Your task to perform on an android device: open app "Life360: Find Family & Friends" (install if not already installed) and go to login screen Image 0: 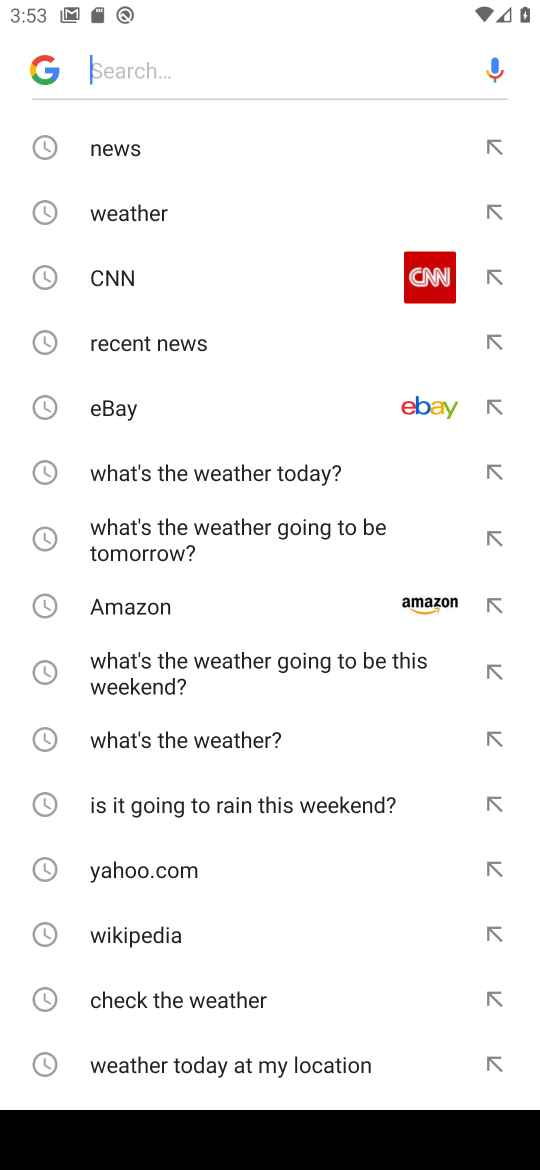
Step 0: press home button
Your task to perform on an android device: open app "Life360: Find Family & Friends" (install if not already installed) and go to login screen Image 1: 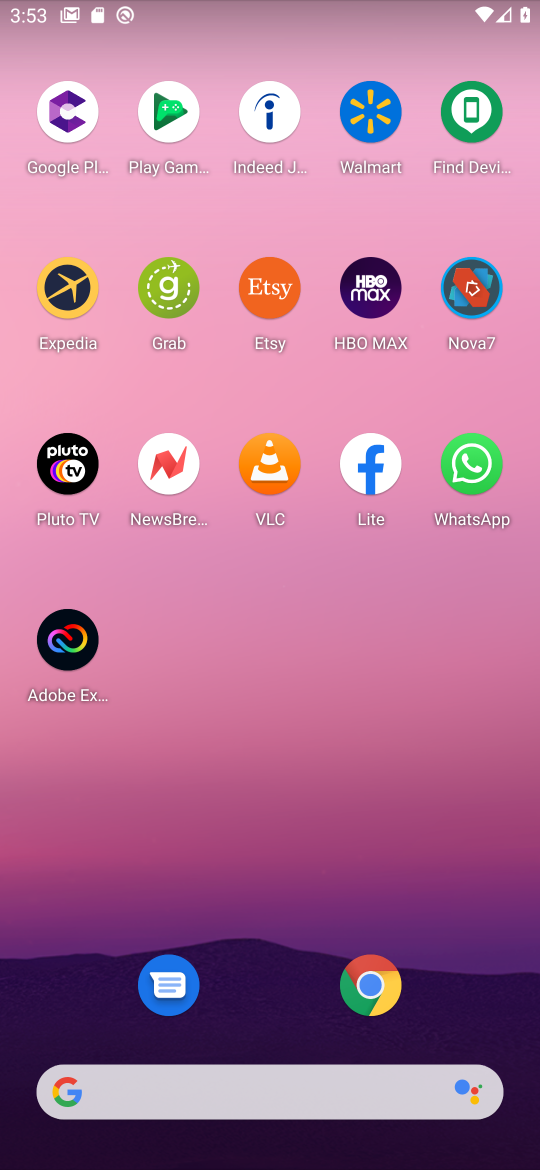
Step 1: click (228, 90)
Your task to perform on an android device: open app "Life360: Find Family & Friends" (install if not already installed) and go to login screen Image 2: 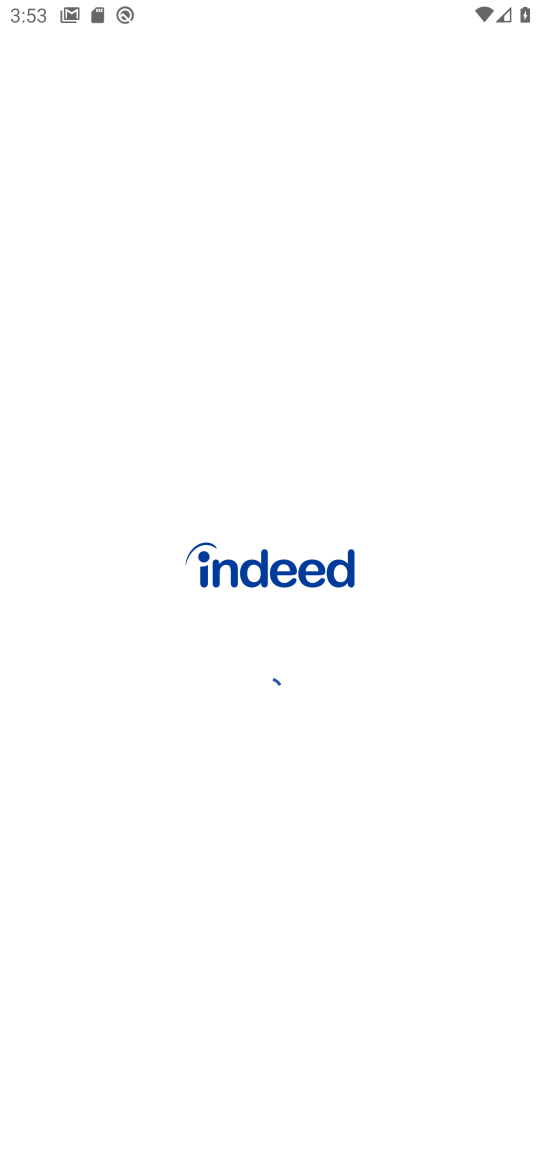
Step 2: press home button
Your task to perform on an android device: open app "Life360: Find Family & Friends" (install if not already installed) and go to login screen Image 3: 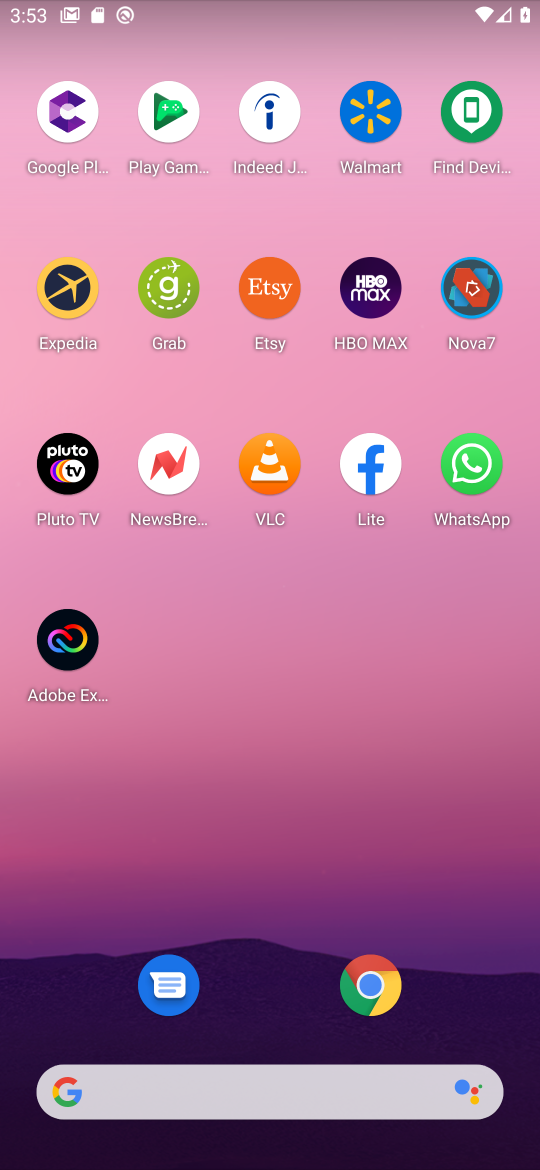
Step 3: drag from (251, 652) to (251, 181)
Your task to perform on an android device: open app "Life360: Find Family & Friends" (install if not already installed) and go to login screen Image 4: 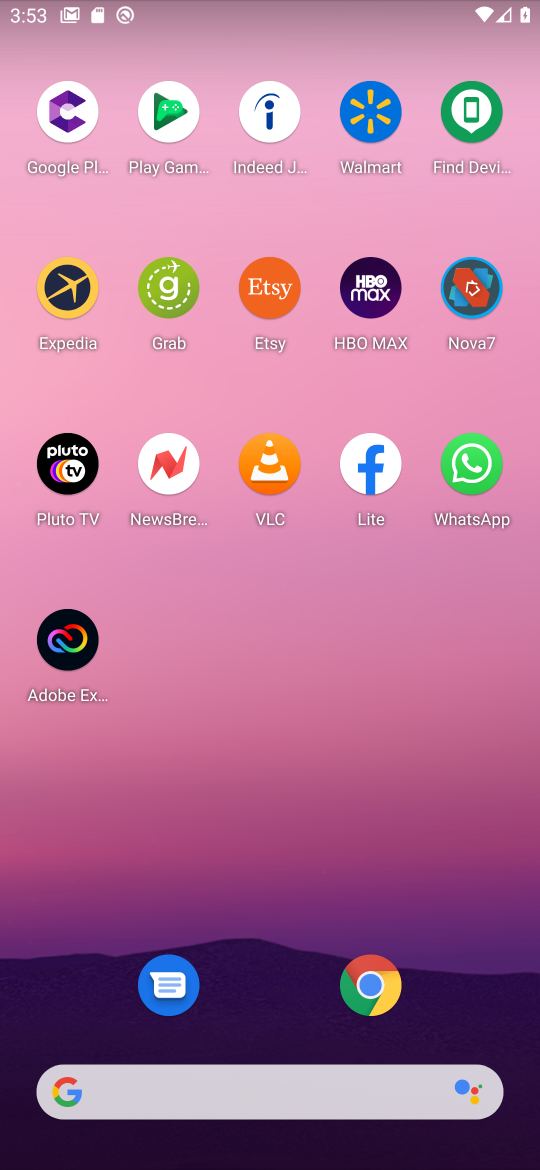
Step 4: drag from (279, 905) to (305, 18)
Your task to perform on an android device: open app "Life360: Find Family & Friends" (install if not already installed) and go to login screen Image 5: 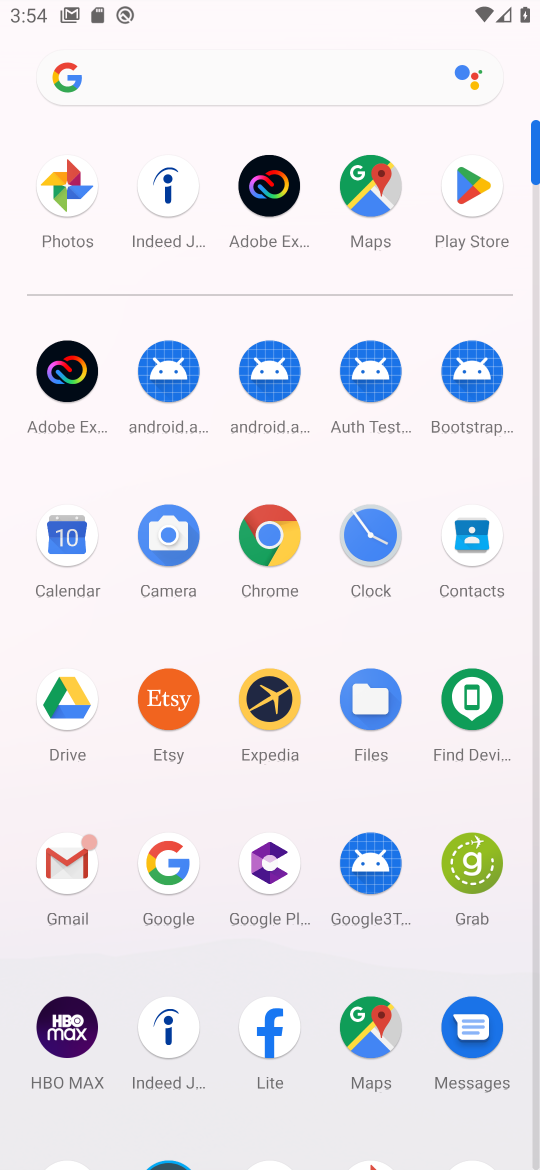
Step 5: click (472, 187)
Your task to perform on an android device: open app "Life360: Find Family & Friends" (install if not already installed) and go to login screen Image 6: 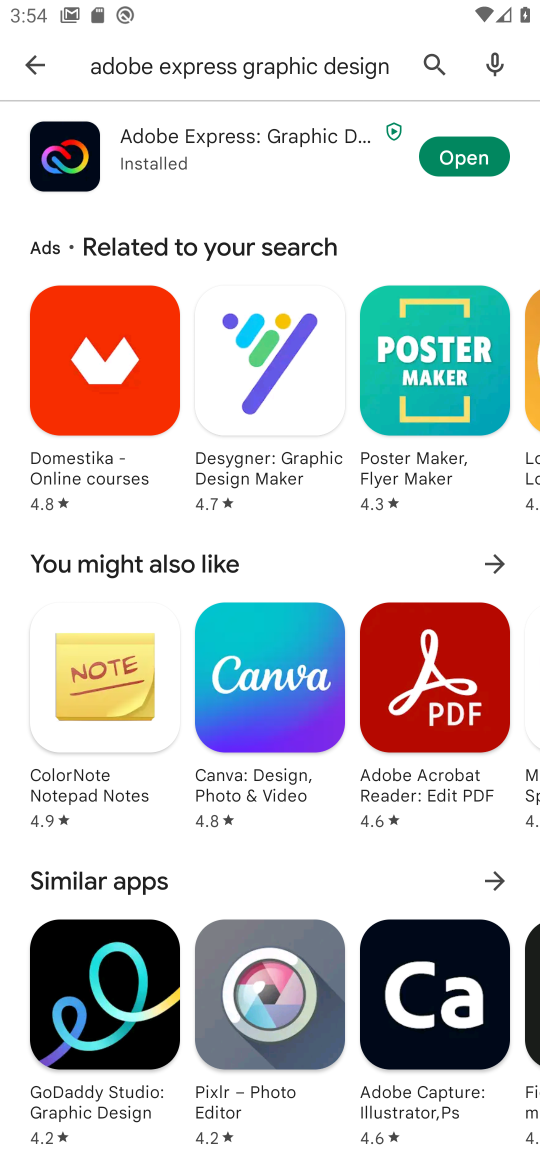
Step 6: click (462, 168)
Your task to perform on an android device: open app "Life360: Find Family & Friends" (install if not already installed) and go to login screen Image 7: 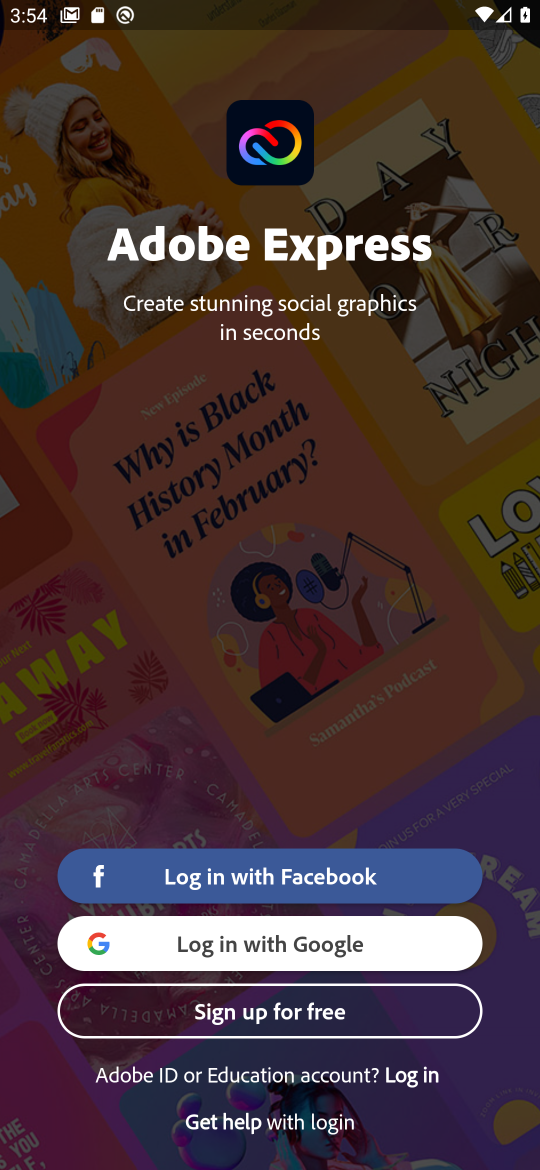
Step 7: press back button
Your task to perform on an android device: open app "Life360: Find Family & Friends" (install if not already installed) and go to login screen Image 8: 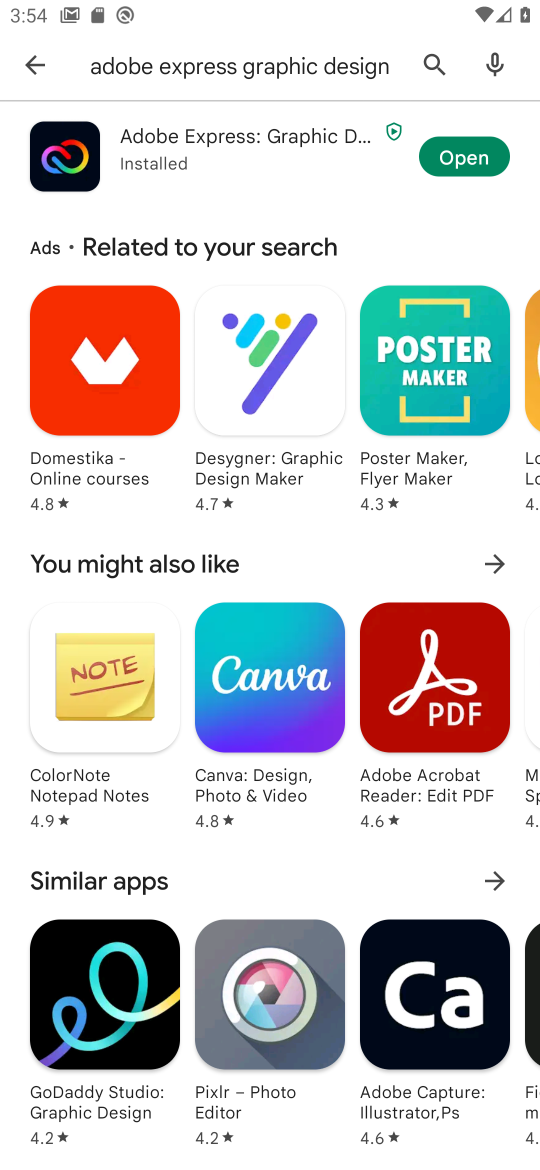
Step 8: press back button
Your task to perform on an android device: open app "Life360: Find Family & Friends" (install if not already installed) and go to login screen Image 9: 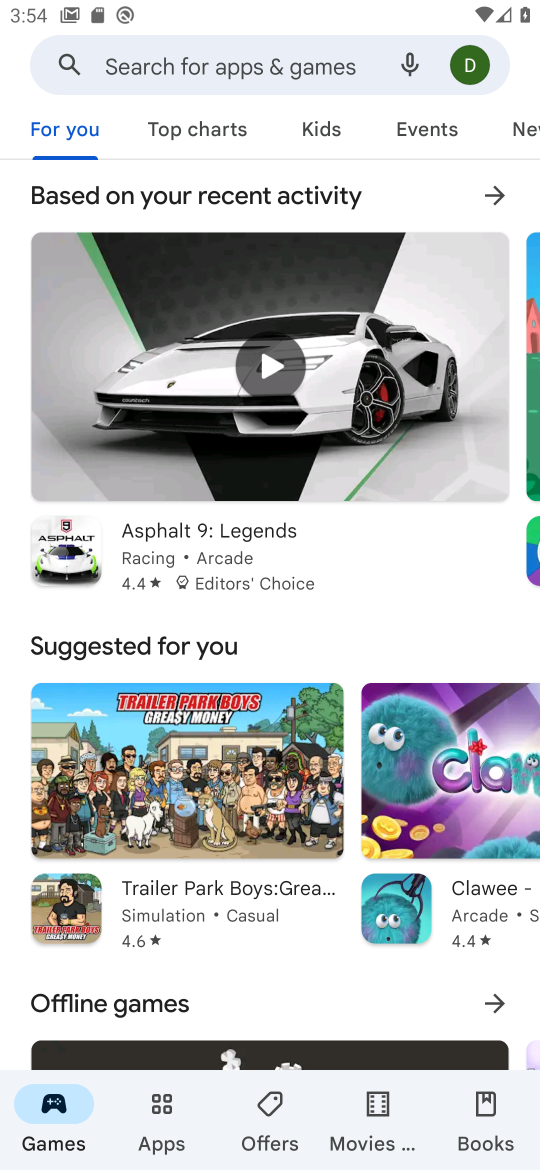
Step 9: click (276, 66)
Your task to perform on an android device: open app "Life360: Find Family & Friends" (install if not already installed) and go to login screen Image 10: 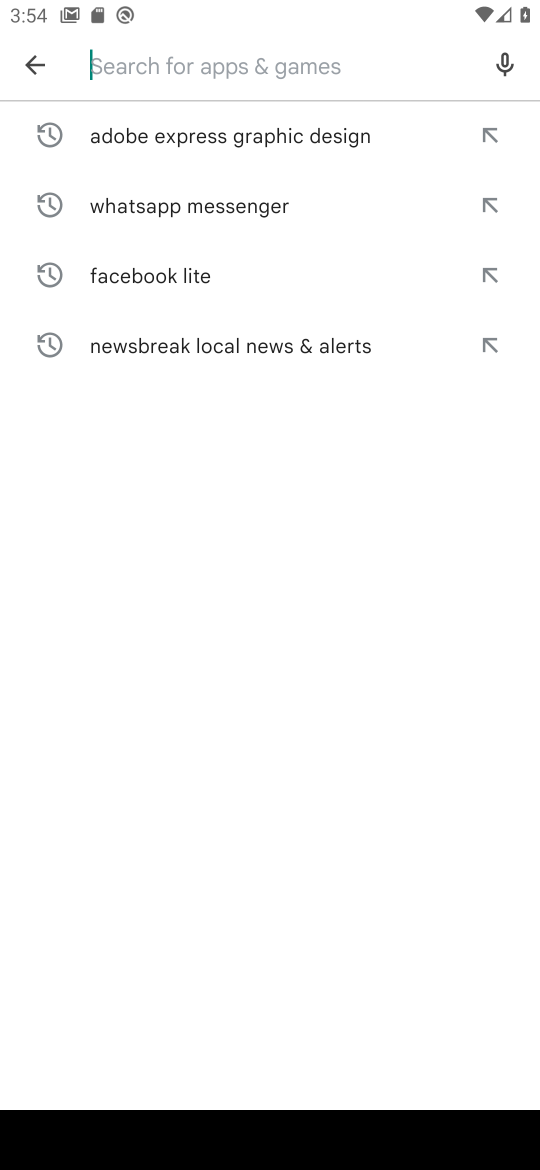
Step 10: type "Life360: Find Family & Friends"
Your task to perform on an android device: open app "Life360: Find Family & Friends" (install if not already installed) and go to login screen Image 11: 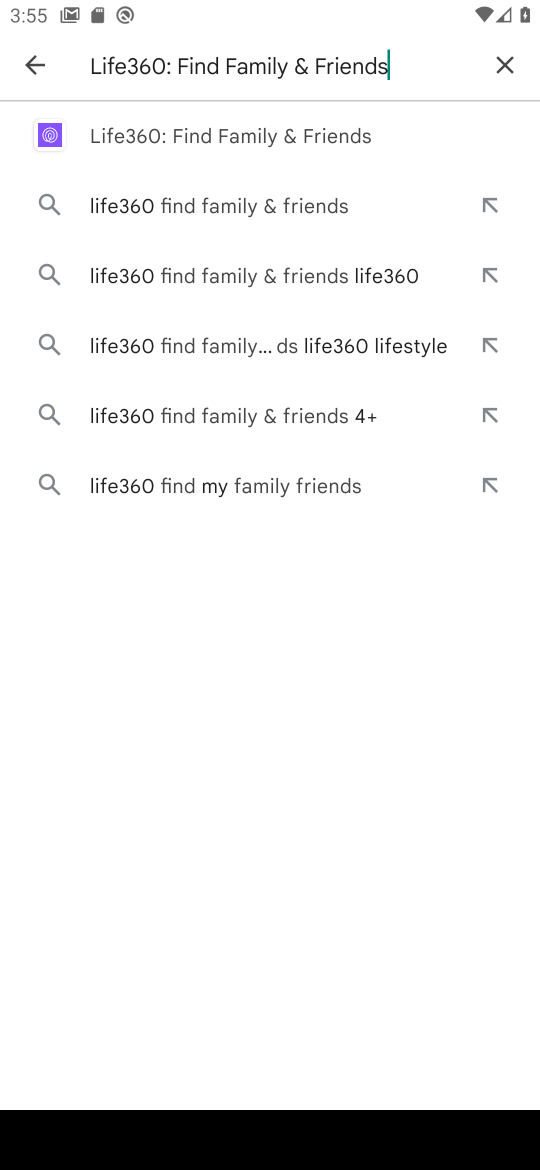
Step 11: click (334, 131)
Your task to perform on an android device: open app "Life360: Find Family & Friends" (install if not already installed) and go to login screen Image 12: 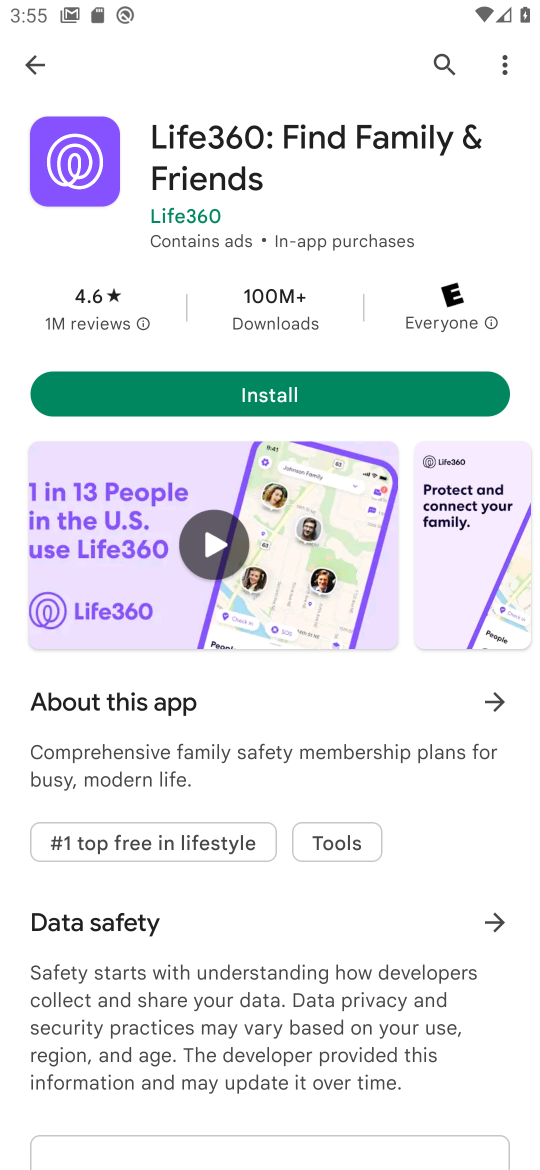
Step 12: click (274, 386)
Your task to perform on an android device: open app "Life360: Find Family & Friends" (install if not already installed) and go to login screen Image 13: 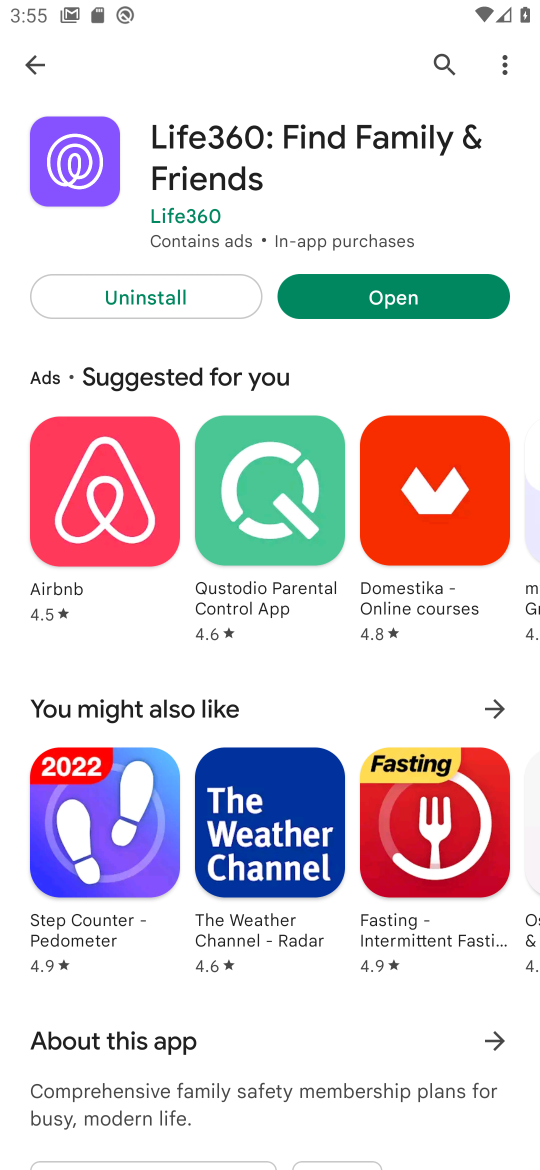
Step 13: click (386, 298)
Your task to perform on an android device: open app "Life360: Find Family & Friends" (install if not already installed) and go to login screen Image 14: 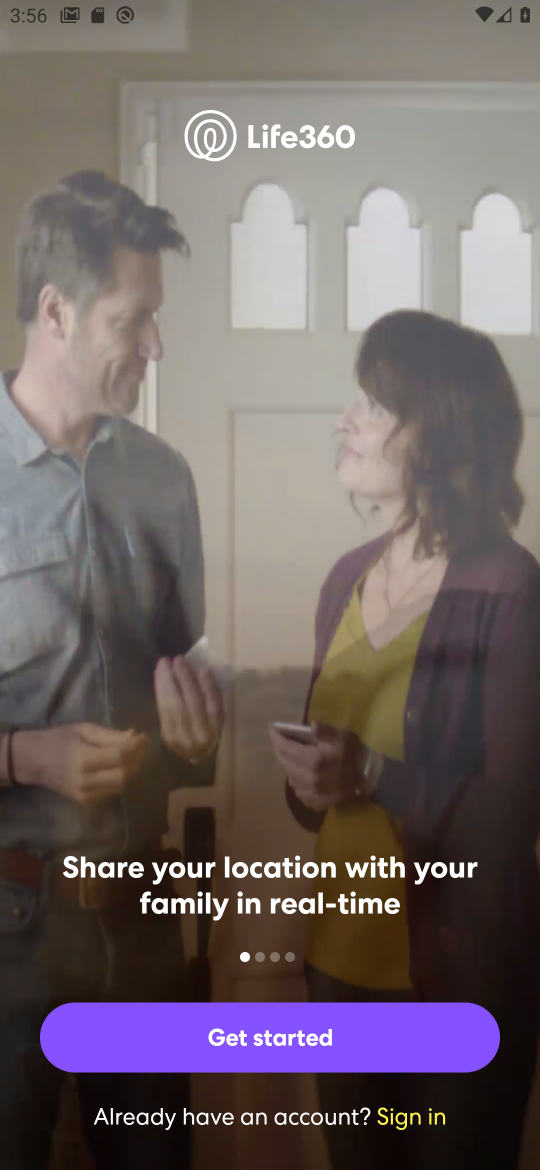
Step 14: task complete